Your task to perform on an android device: Search for razer nari on newegg.com, select the first entry, and add it to the cart. Image 0: 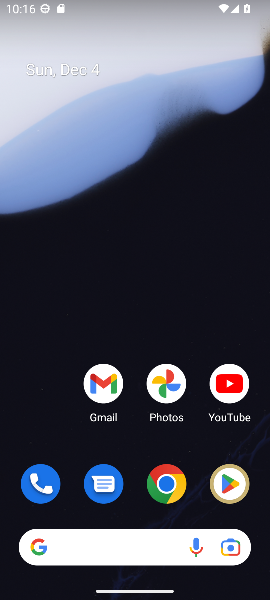
Step 0: click (180, 485)
Your task to perform on an android device: Search for razer nari on newegg.com, select the first entry, and add it to the cart. Image 1: 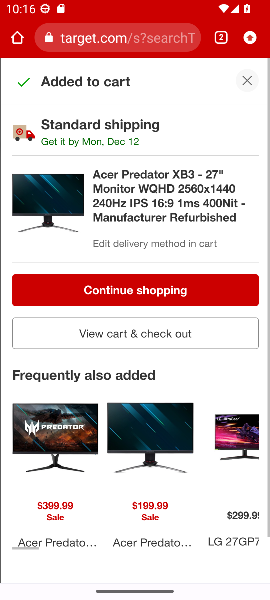
Step 1: click (107, 37)
Your task to perform on an android device: Search for razer nari on newegg.com, select the first entry, and add it to the cart. Image 2: 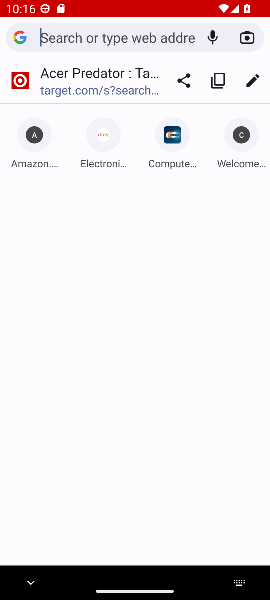
Step 2: click (165, 158)
Your task to perform on an android device: Search for razer nari on newegg.com, select the first entry, and add it to the cart. Image 3: 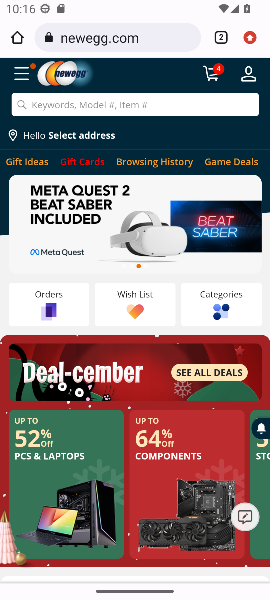
Step 3: click (94, 106)
Your task to perform on an android device: Search for razer nari on newegg.com, select the first entry, and add it to the cart. Image 4: 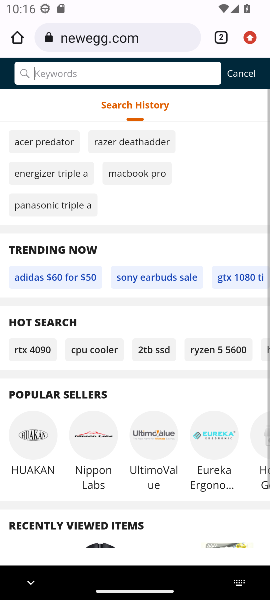
Step 4: type " razer nari "
Your task to perform on an android device: Search for razer nari on newegg.com, select the first entry, and add it to the cart. Image 5: 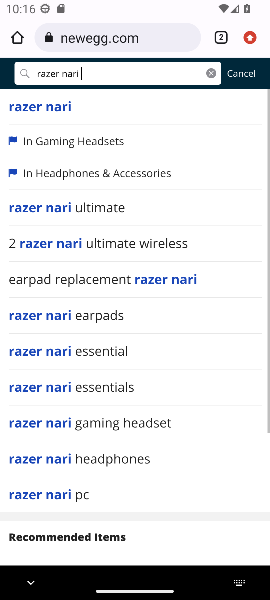
Step 5: click (55, 111)
Your task to perform on an android device: Search for razer nari on newegg.com, select the first entry, and add it to the cart. Image 6: 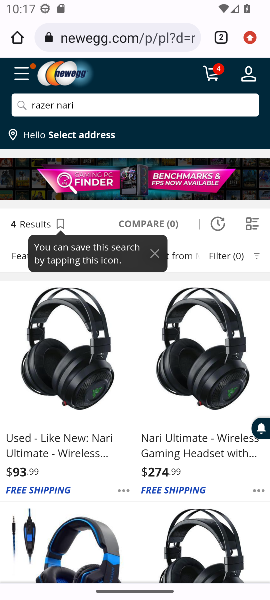
Step 6: click (52, 443)
Your task to perform on an android device: Search for razer nari on newegg.com, select the first entry, and add it to the cart. Image 7: 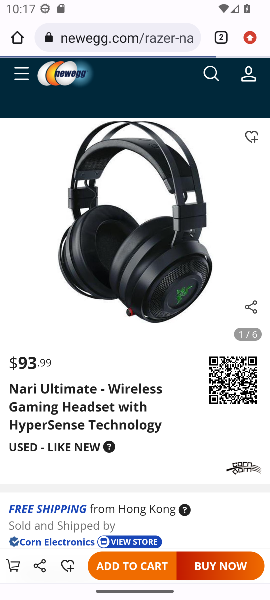
Step 7: click (52, 443)
Your task to perform on an android device: Search for razer nari on newegg.com, select the first entry, and add it to the cart. Image 8: 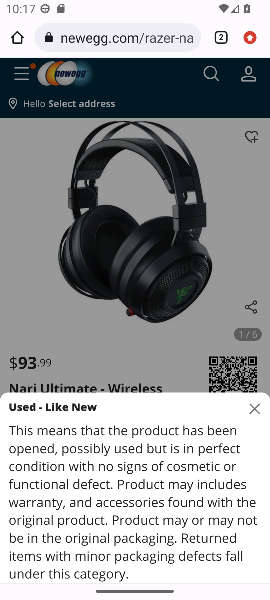
Step 8: click (256, 406)
Your task to perform on an android device: Search for razer nari on newegg.com, select the first entry, and add it to the cart. Image 9: 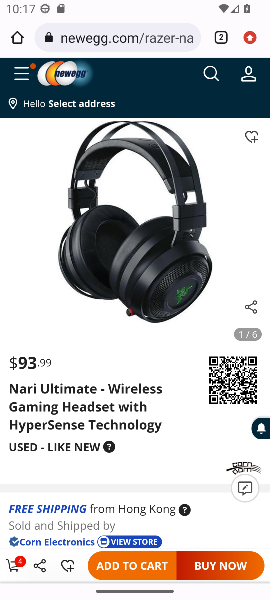
Step 9: click (125, 565)
Your task to perform on an android device: Search for razer nari on newegg.com, select the first entry, and add it to the cart. Image 10: 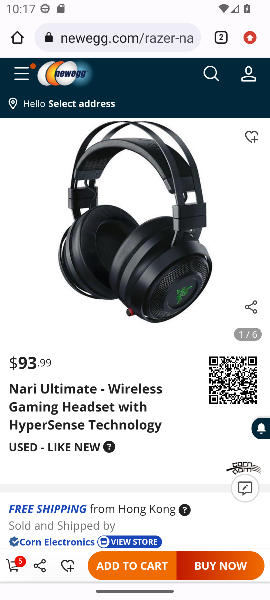
Step 10: task complete